Your task to perform on an android device: toggle data saver in the chrome app Image 0: 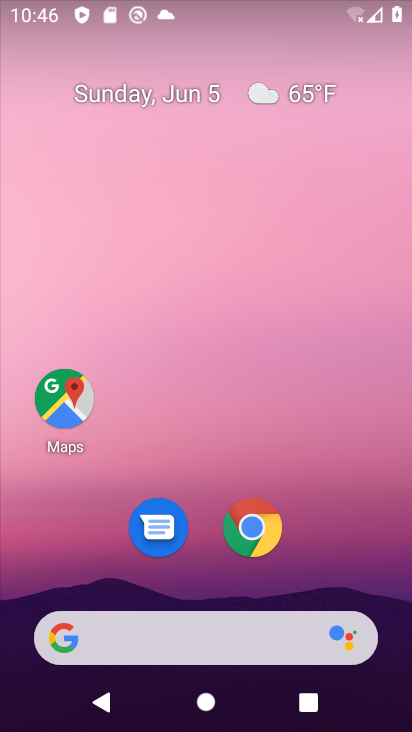
Step 0: click (263, 532)
Your task to perform on an android device: toggle data saver in the chrome app Image 1: 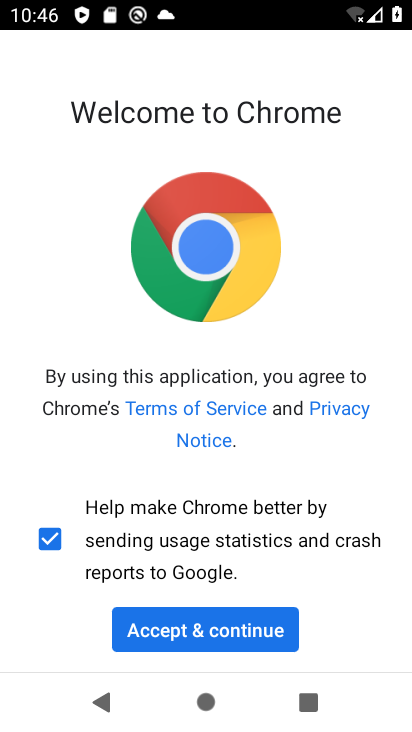
Step 1: click (230, 614)
Your task to perform on an android device: toggle data saver in the chrome app Image 2: 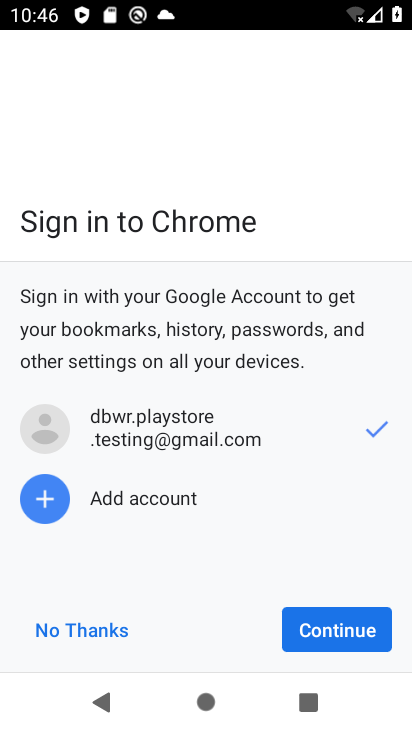
Step 2: click (311, 630)
Your task to perform on an android device: toggle data saver in the chrome app Image 3: 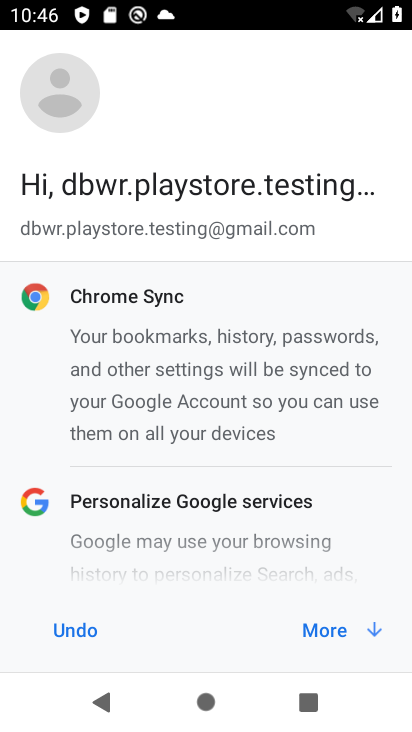
Step 3: click (311, 630)
Your task to perform on an android device: toggle data saver in the chrome app Image 4: 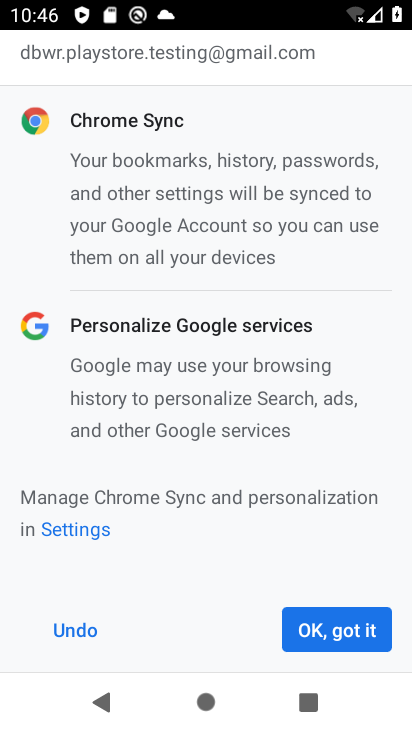
Step 4: click (311, 630)
Your task to perform on an android device: toggle data saver in the chrome app Image 5: 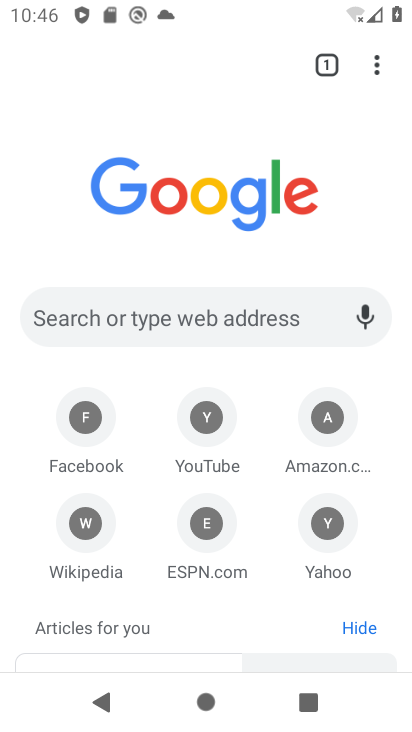
Step 5: click (384, 64)
Your task to perform on an android device: toggle data saver in the chrome app Image 6: 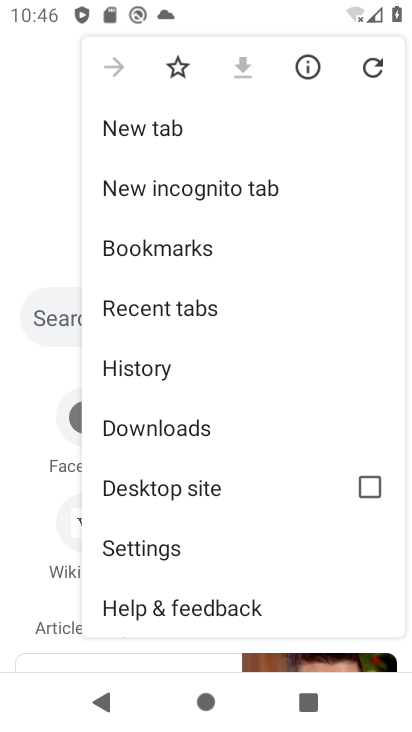
Step 6: click (137, 557)
Your task to perform on an android device: toggle data saver in the chrome app Image 7: 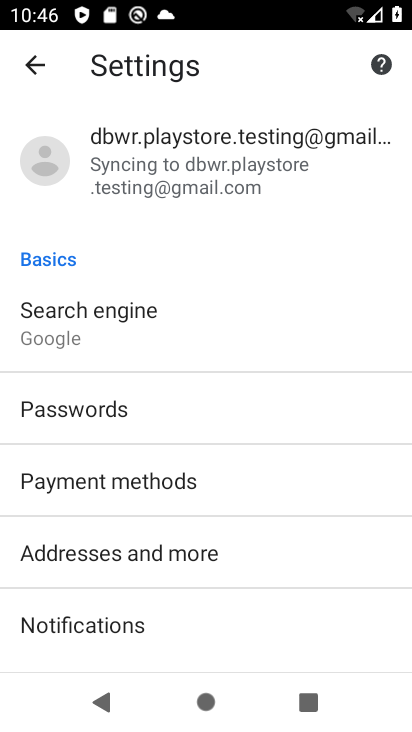
Step 7: drag from (214, 564) to (221, 230)
Your task to perform on an android device: toggle data saver in the chrome app Image 8: 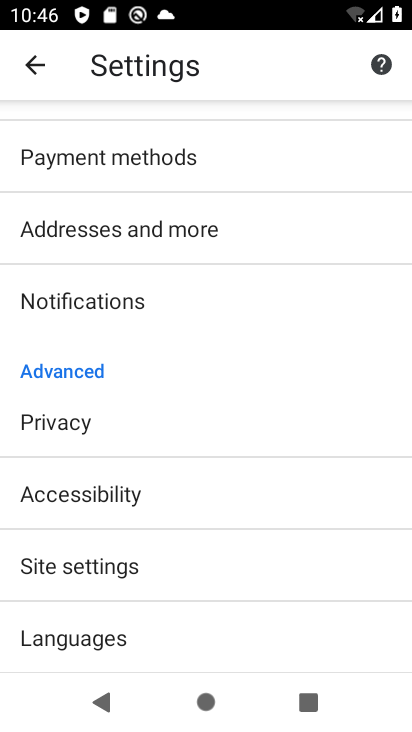
Step 8: drag from (210, 595) to (225, 293)
Your task to perform on an android device: toggle data saver in the chrome app Image 9: 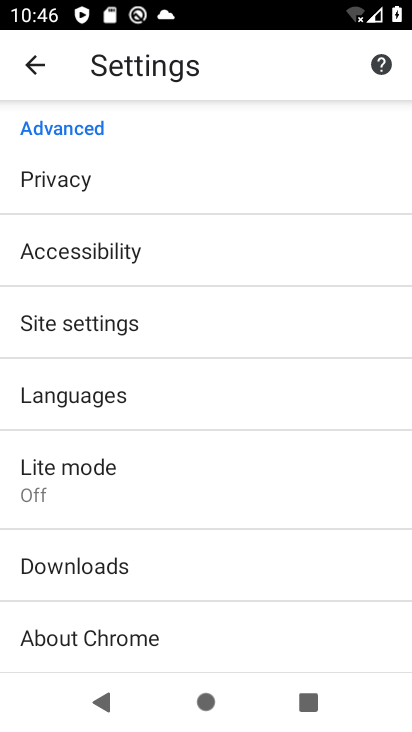
Step 9: click (148, 473)
Your task to perform on an android device: toggle data saver in the chrome app Image 10: 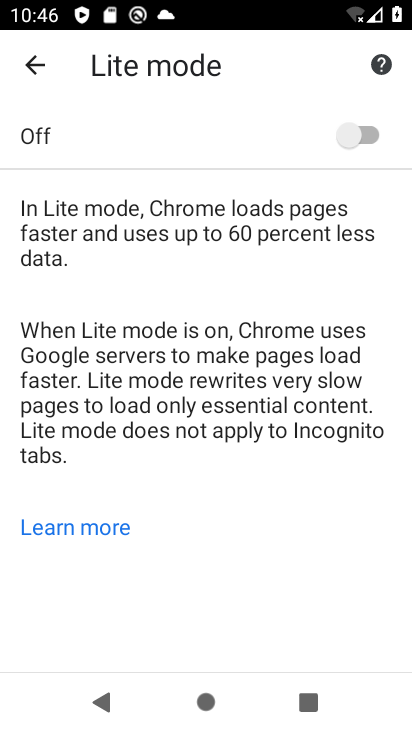
Step 10: click (365, 134)
Your task to perform on an android device: toggle data saver in the chrome app Image 11: 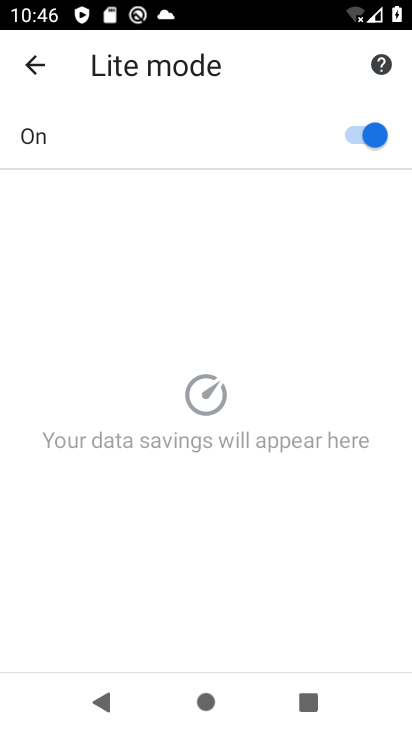
Step 11: task complete